Your task to perform on an android device: turn off notifications in google photos Image 0: 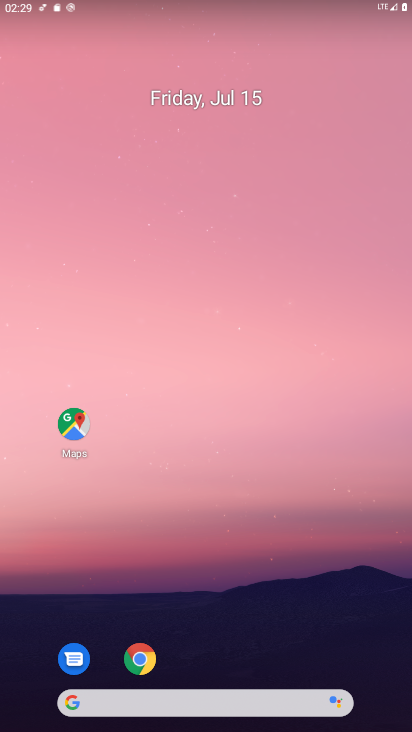
Step 0: drag from (139, 662) to (181, 341)
Your task to perform on an android device: turn off notifications in google photos Image 1: 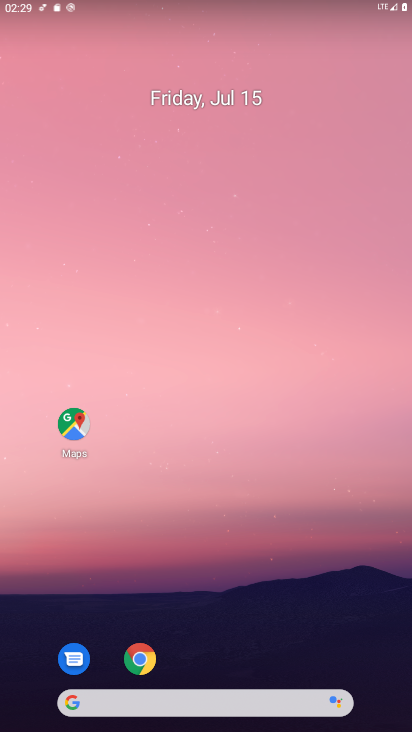
Step 1: drag from (210, 607) to (290, 148)
Your task to perform on an android device: turn off notifications in google photos Image 2: 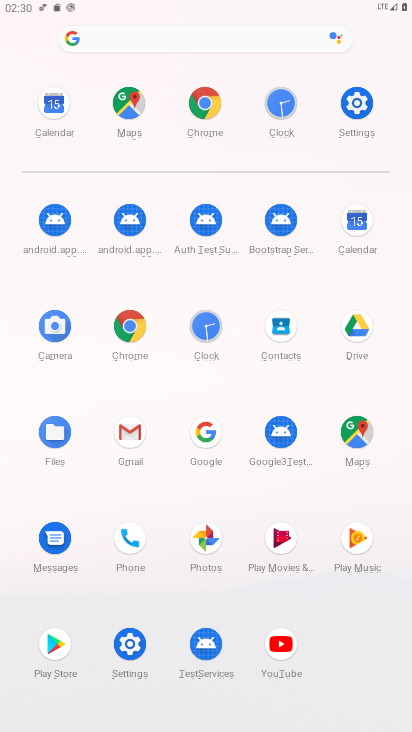
Step 2: click (209, 527)
Your task to perform on an android device: turn off notifications in google photos Image 3: 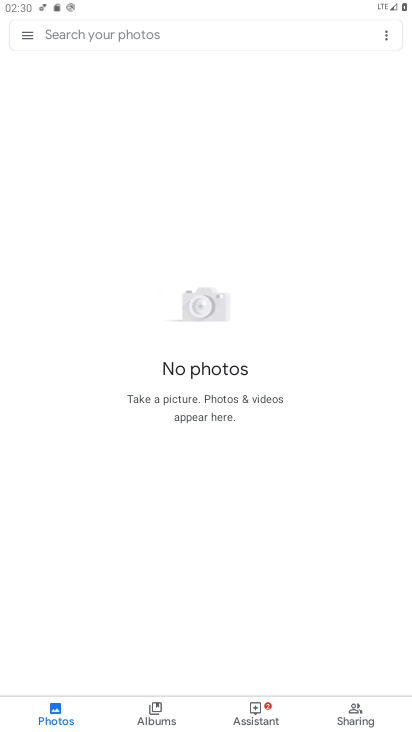
Step 3: click (24, 31)
Your task to perform on an android device: turn off notifications in google photos Image 4: 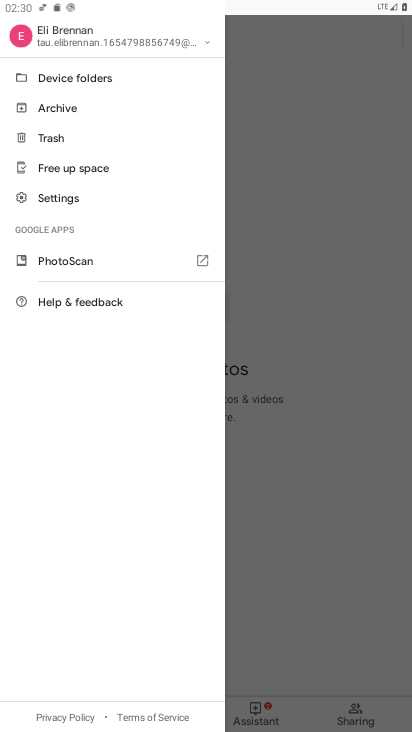
Step 4: click (76, 200)
Your task to perform on an android device: turn off notifications in google photos Image 5: 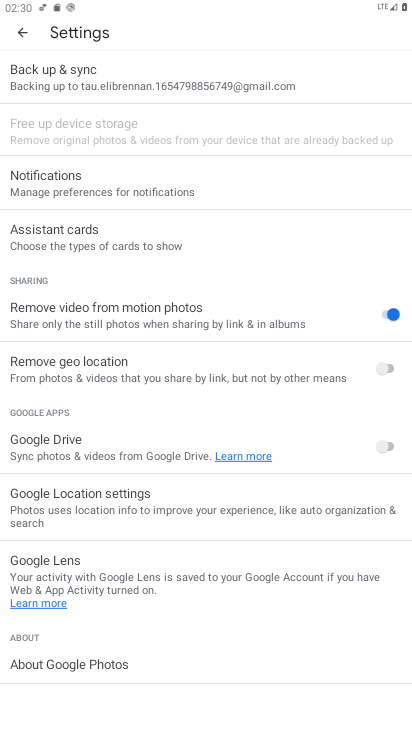
Step 5: click (86, 179)
Your task to perform on an android device: turn off notifications in google photos Image 6: 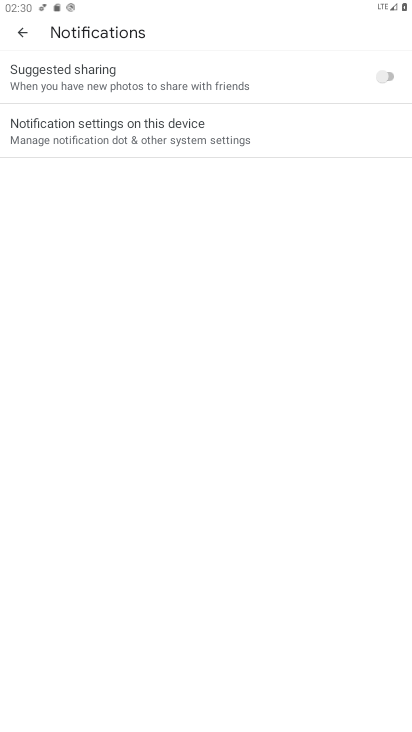
Step 6: click (22, 31)
Your task to perform on an android device: turn off notifications in google photos Image 7: 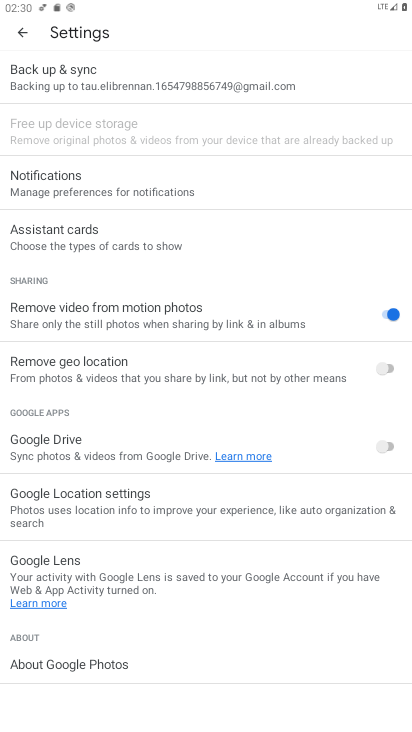
Step 7: click (88, 61)
Your task to perform on an android device: turn off notifications in google photos Image 8: 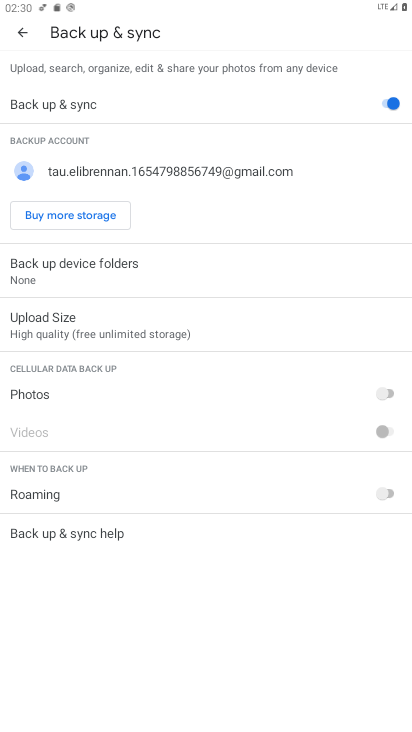
Step 8: click (25, 32)
Your task to perform on an android device: turn off notifications in google photos Image 9: 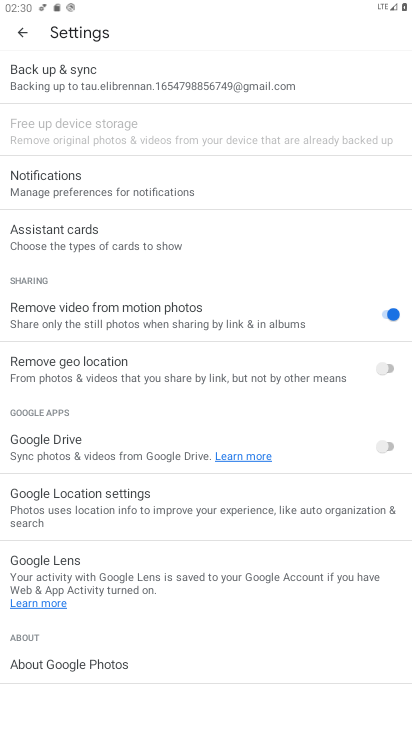
Step 9: click (71, 188)
Your task to perform on an android device: turn off notifications in google photos Image 10: 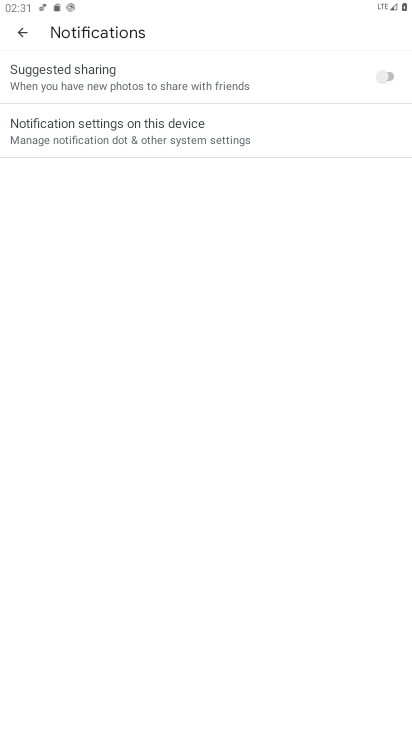
Step 10: click (110, 128)
Your task to perform on an android device: turn off notifications in google photos Image 11: 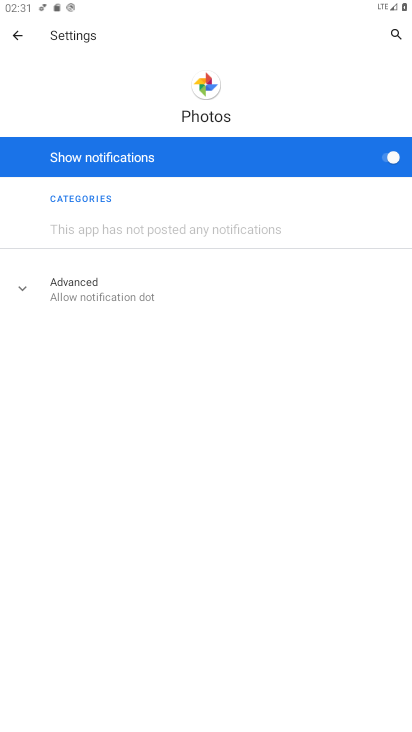
Step 11: click (391, 164)
Your task to perform on an android device: turn off notifications in google photos Image 12: 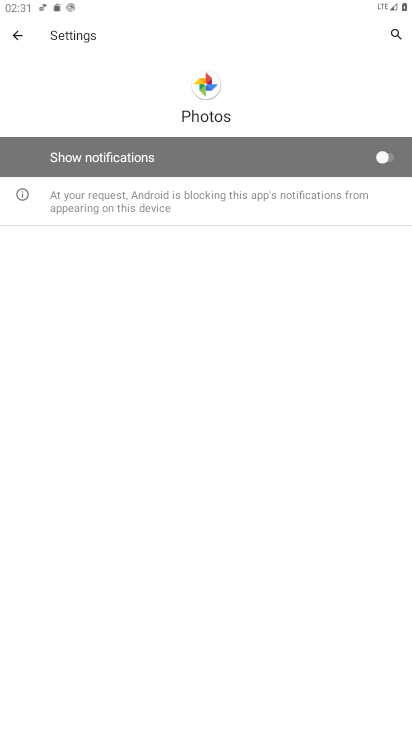
Step 12: task complete